Your task to perform on an android device: Open Youtube and go to "Your channel" Image 0: 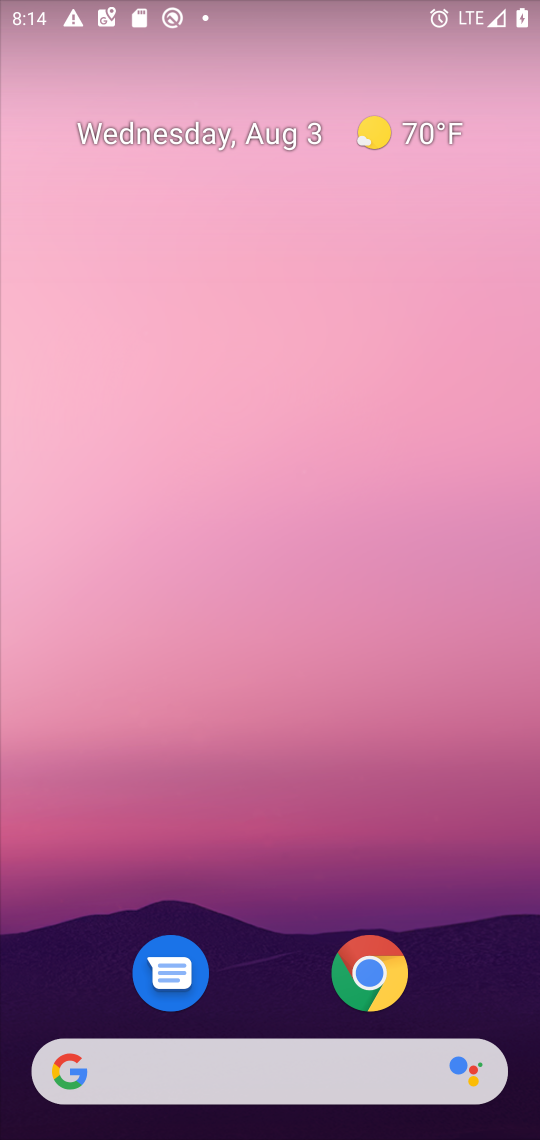
Step 0: press home button
Your task to perform on an android device: Open Youtube and go to "Your channel" Image 1: 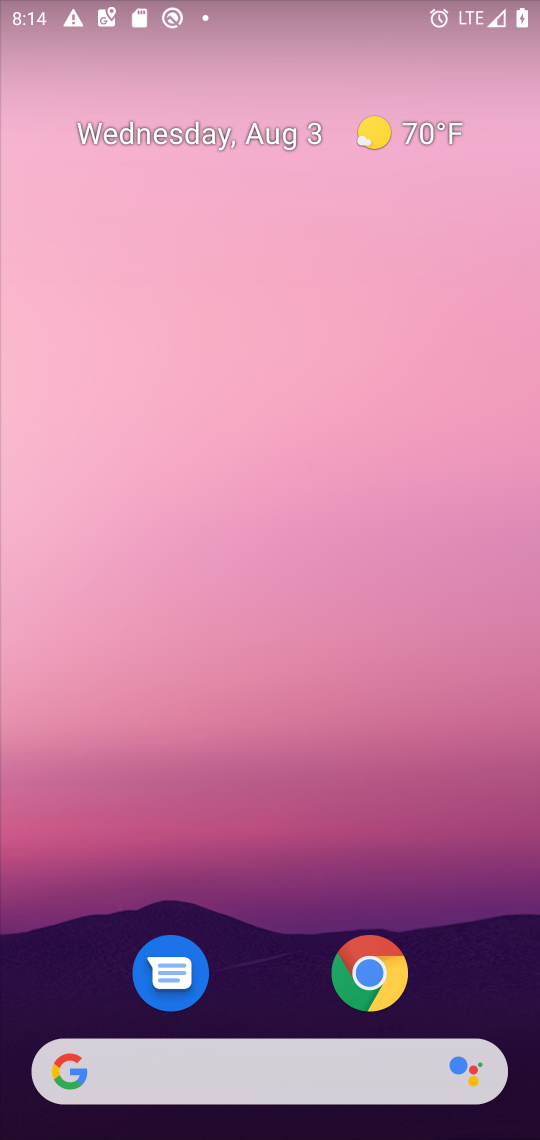
Step 1: drag from (273, 1003) to (300, 36)
Your task to perform on an android device: Open Youtube and go to "Your channel" Image 2: 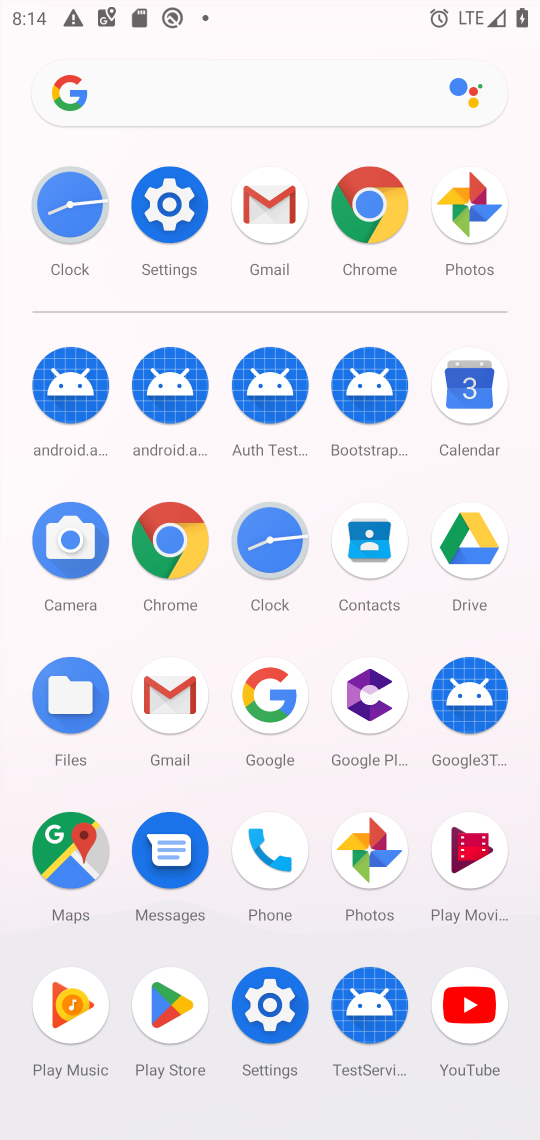
Step 2: click (455, 1005)
Your task to perform on an android device: Open Youtube and go to "Your channel" Image 3: 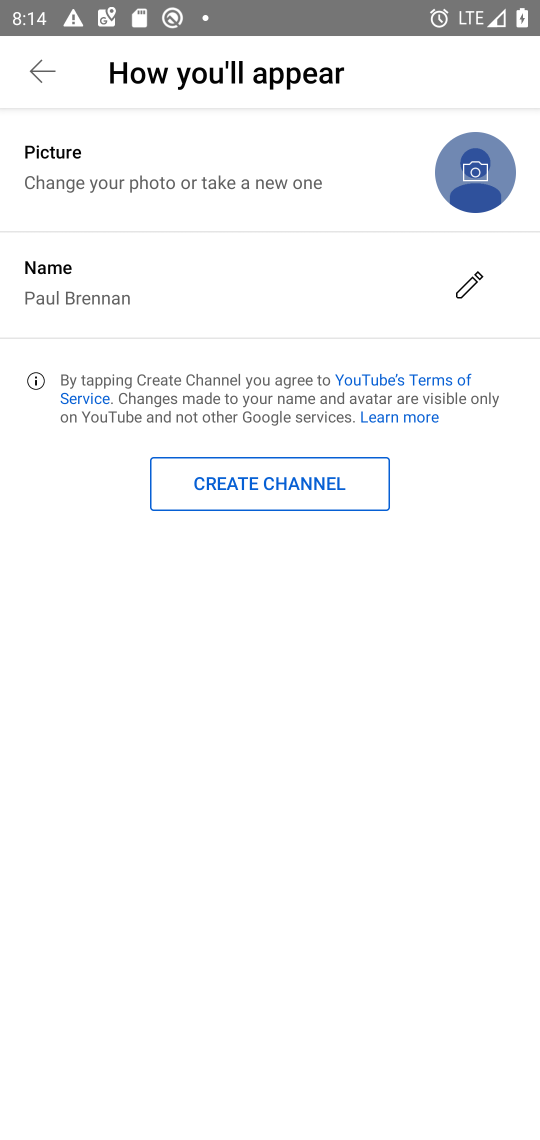
Step 3: click (62, 64)
Your task to perform on an android device: Open Youtube and go to "Your channel" Image 4: 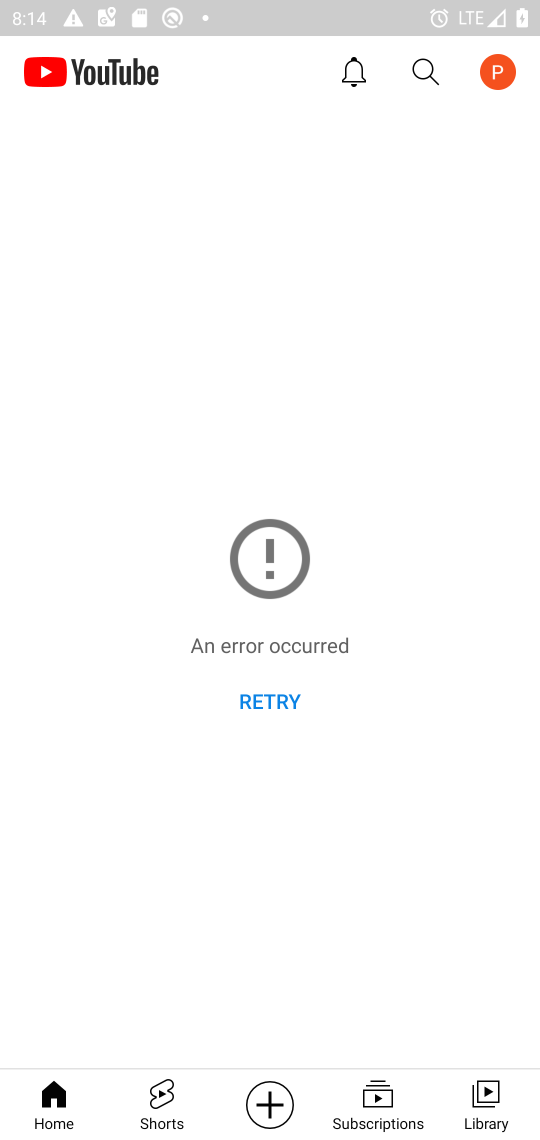
Step 4: click (483, 1100)
Your task to perform on an android device: Open Youtube and go to "Your channel" Image 5: 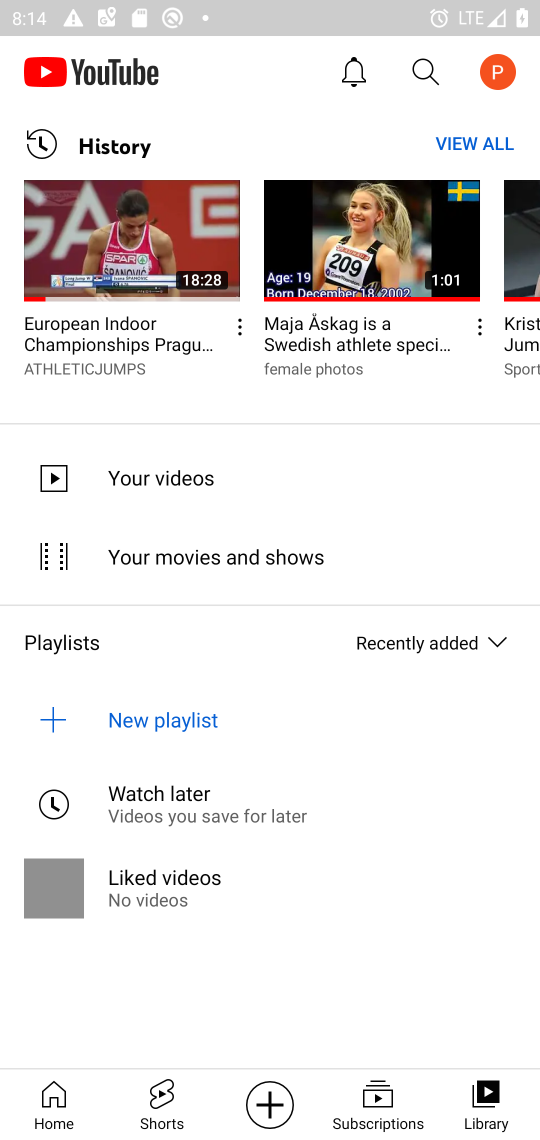
Step 5: click (500, 69)
Your task to perform on an android device: Open Youtube and go to "Your channel" Image 6: 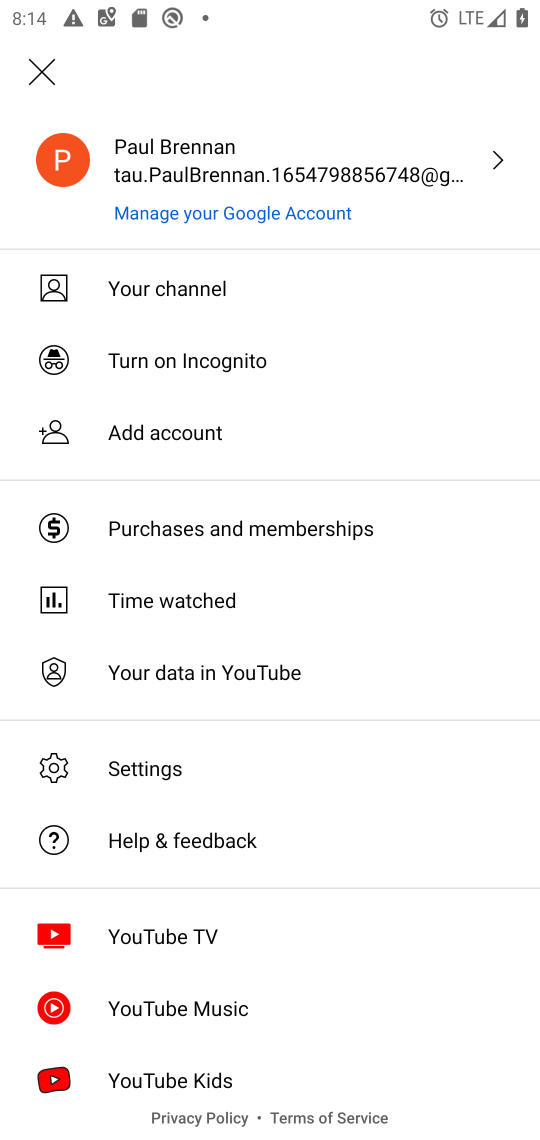
Step 6: click (140, 291)
Your task to perform on an android device: Open Youtube and go to "Your channel" Image 7: 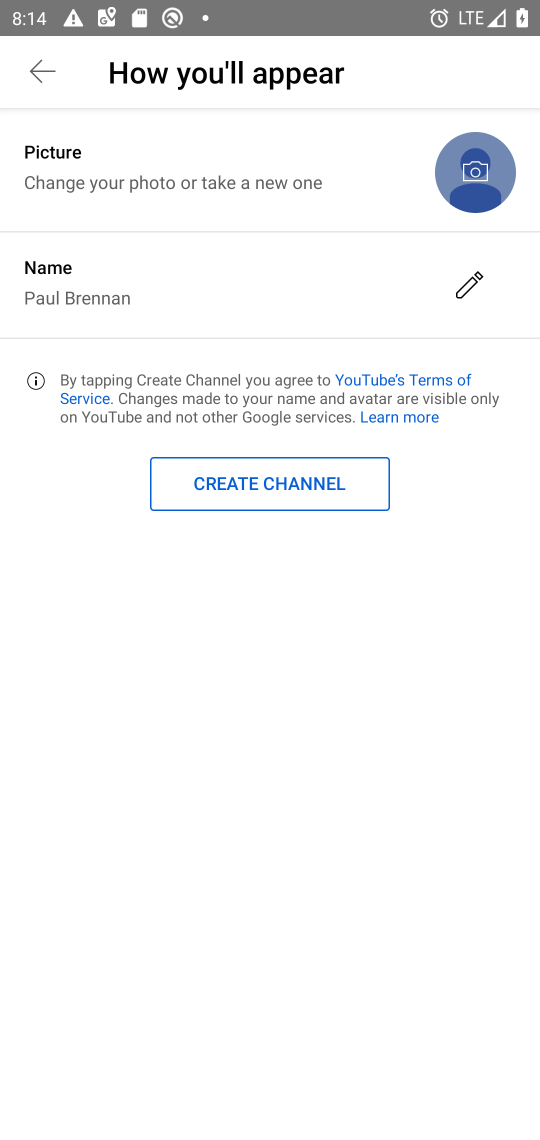
Step 7: task complete